Your task to perform on an android device: delete the emails in spam in the gmail app Image 0: 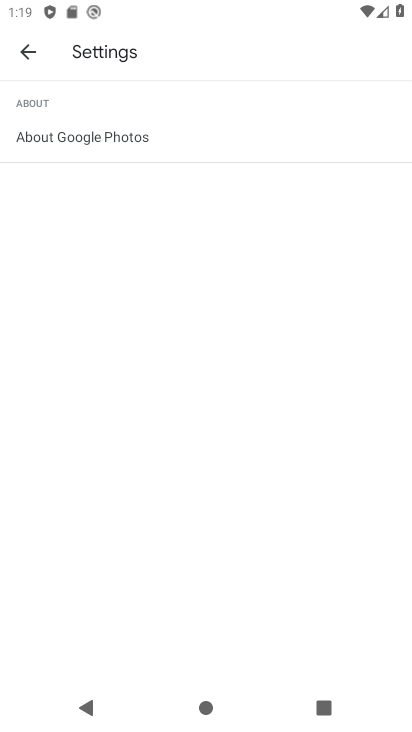
Step 0: press home button
Your task to perform on an android device: delete the emails in spam in the gmail app Image 1: 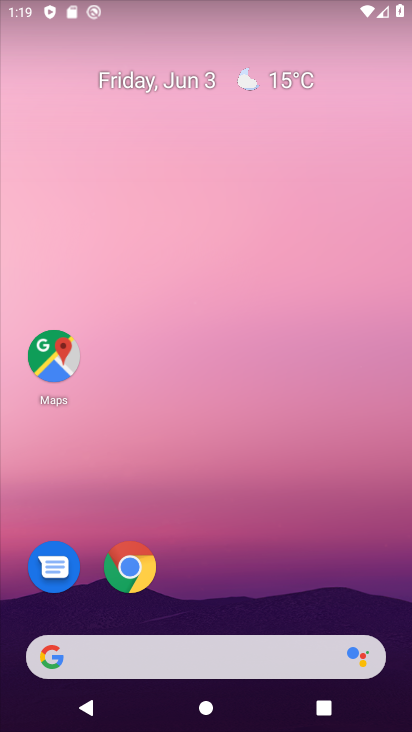
Step 1: drag from (245, 627) to (258, 132)
Your task to perform on an android device: delete the emails in spam in the gmail app Image 2: 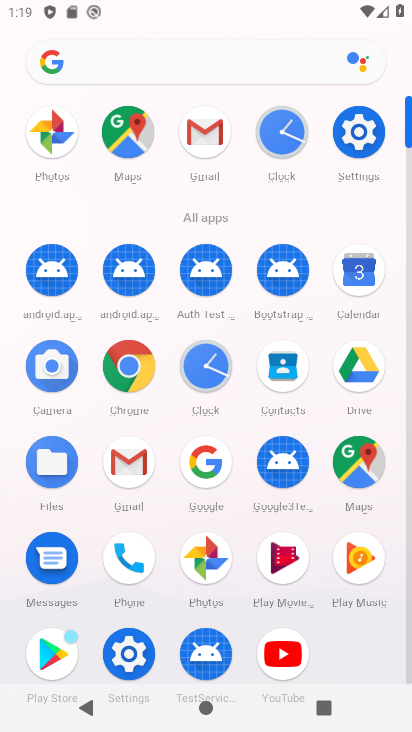
Step 2: click (202, 133)
Your task to perform on an android device: delete the emails in spam in the gmail app Image 3: 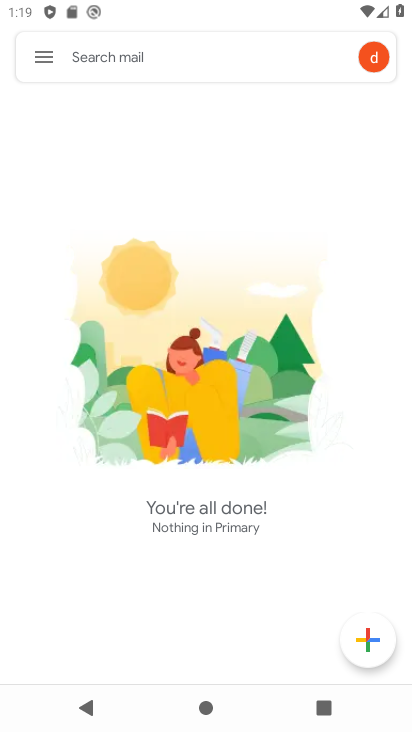
Step 3: click (38, 58)
Your task to perform on an android device: delete the emails in spam in the gmail app Image 4: 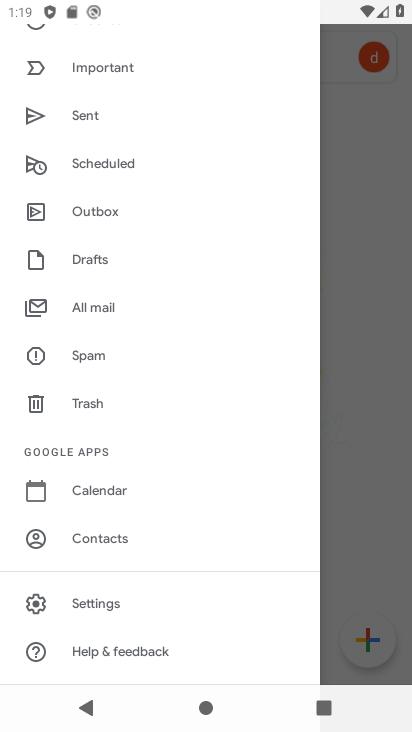
Step 4: click (98, 368)
Your task to perform on an android device: delete the emails in spam in the gmail app Image 5: 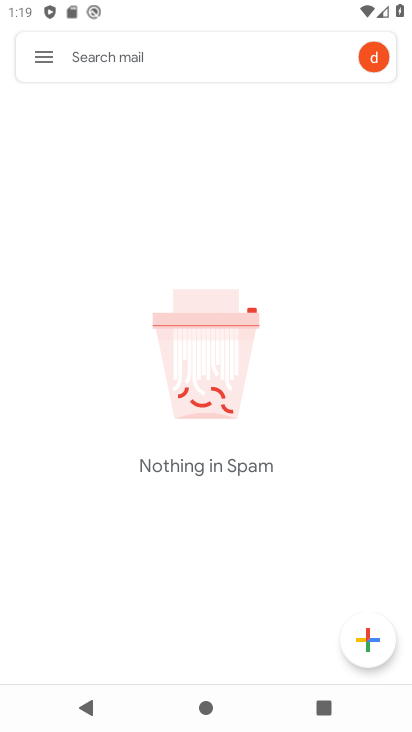
Step 5: task complete